Your task to perform on an android device: toggle data saver in the chrome app Image 0: 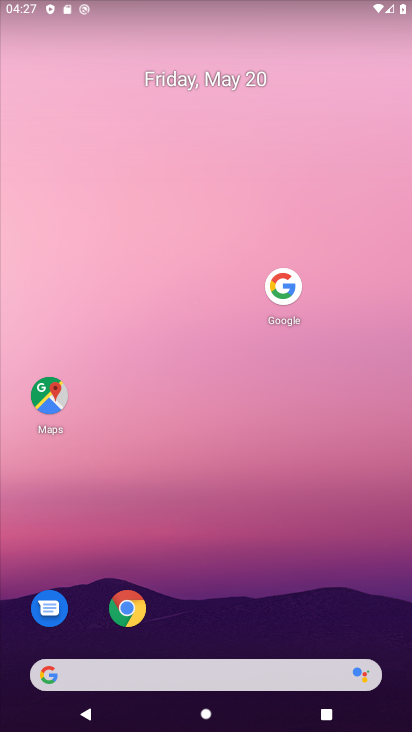
Step 0: click (134, 611)
Your task to perform on an android device: toggle data saver in the chrome app Image 1: 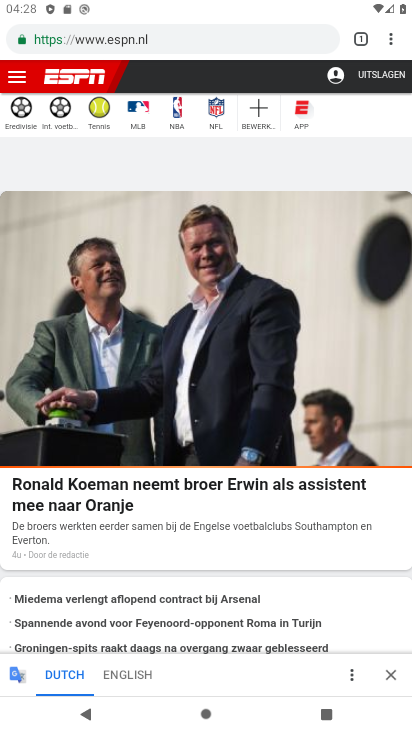
Step 1: drag from (392, 32) to (258, 460)
Your task to perform on an android device: toggle data saver in the chrome app Image 2: 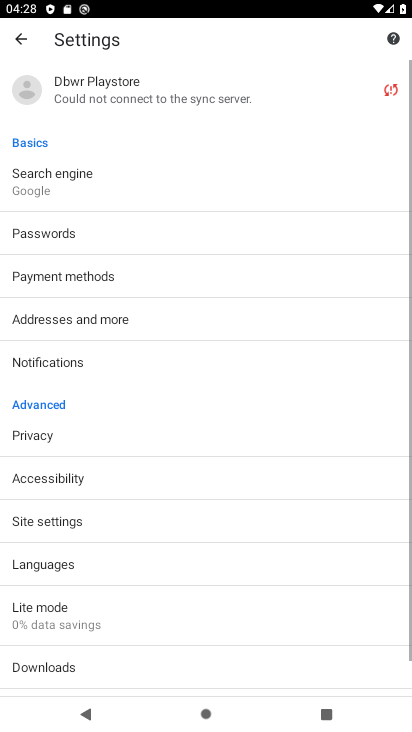
Step 2: click (37, 614)
Your task to perform on an android device: toggle data saver in the chrome app Image 3: 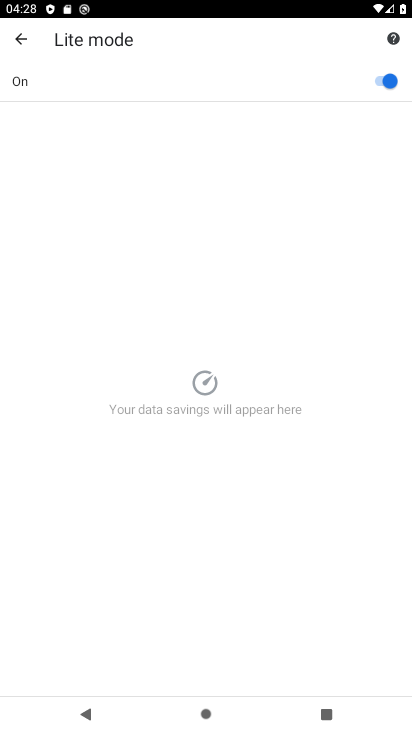
Step 3: click (384, 74)
Your task to perform on an android device: toggle data saver in the chrome app Image 4: 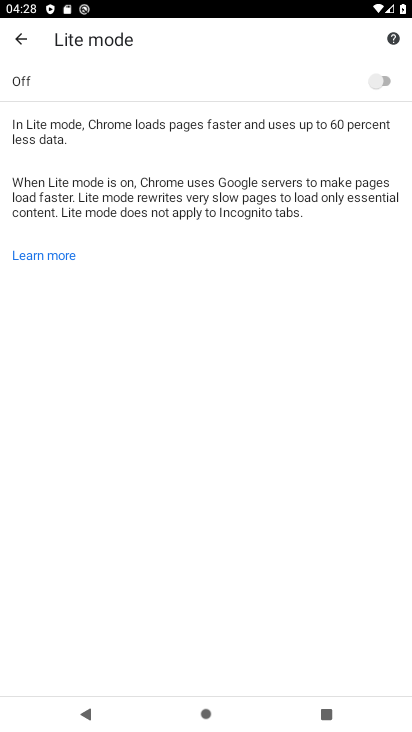
Step 4: task complete